Your task to perform on an android device: What's the news in Myanmar? Image 0: 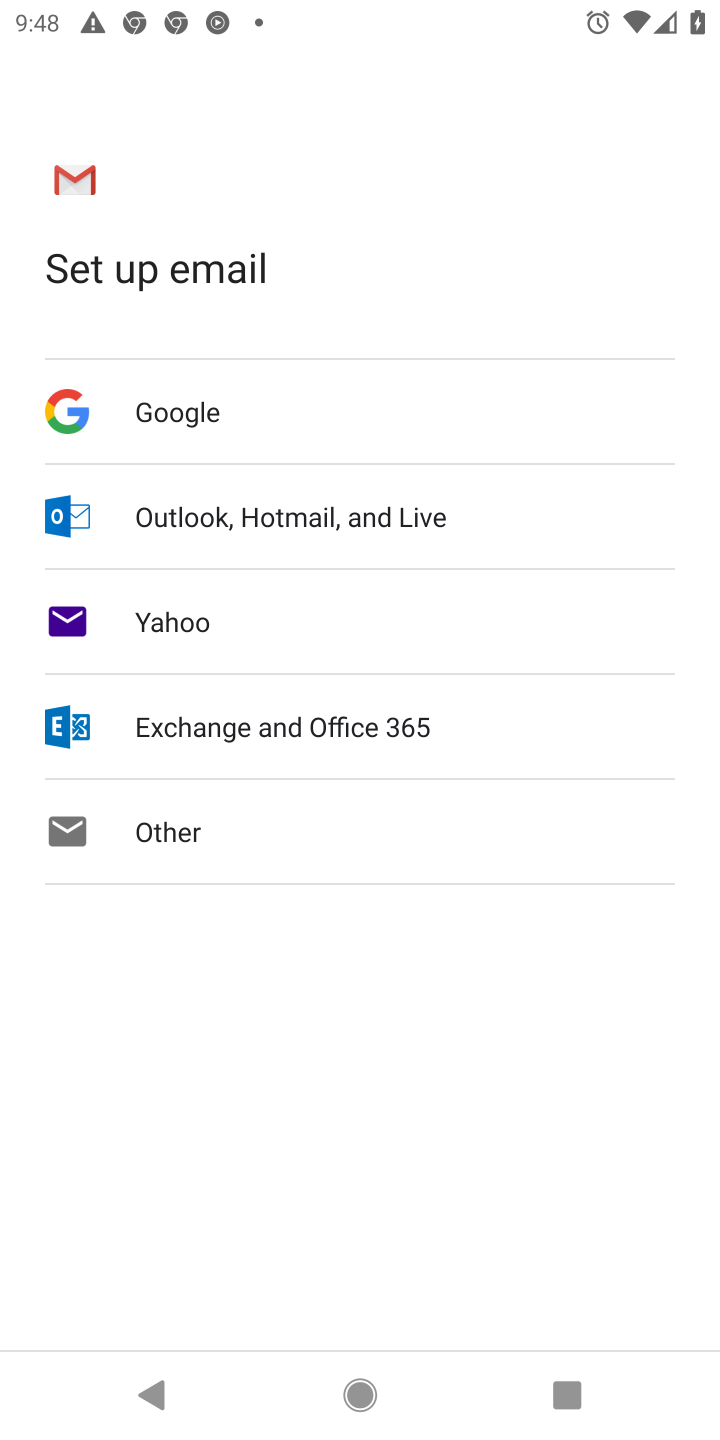
Step 0: press home button
Your task to perform on an android device: What's the news in Myanmar? Image 1: 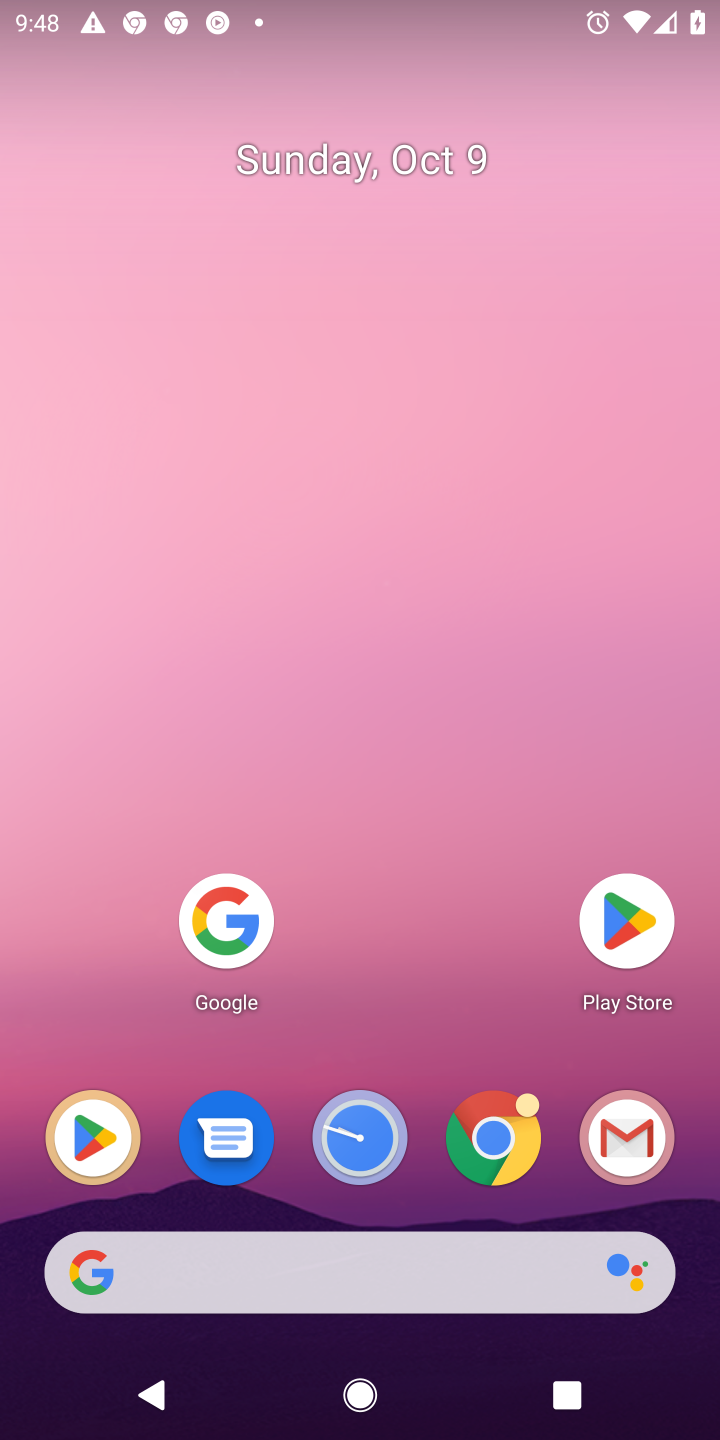
Step 1: click (219, 912)
Your task to perform on an android device: What's the news in Myanmar? Image 2: 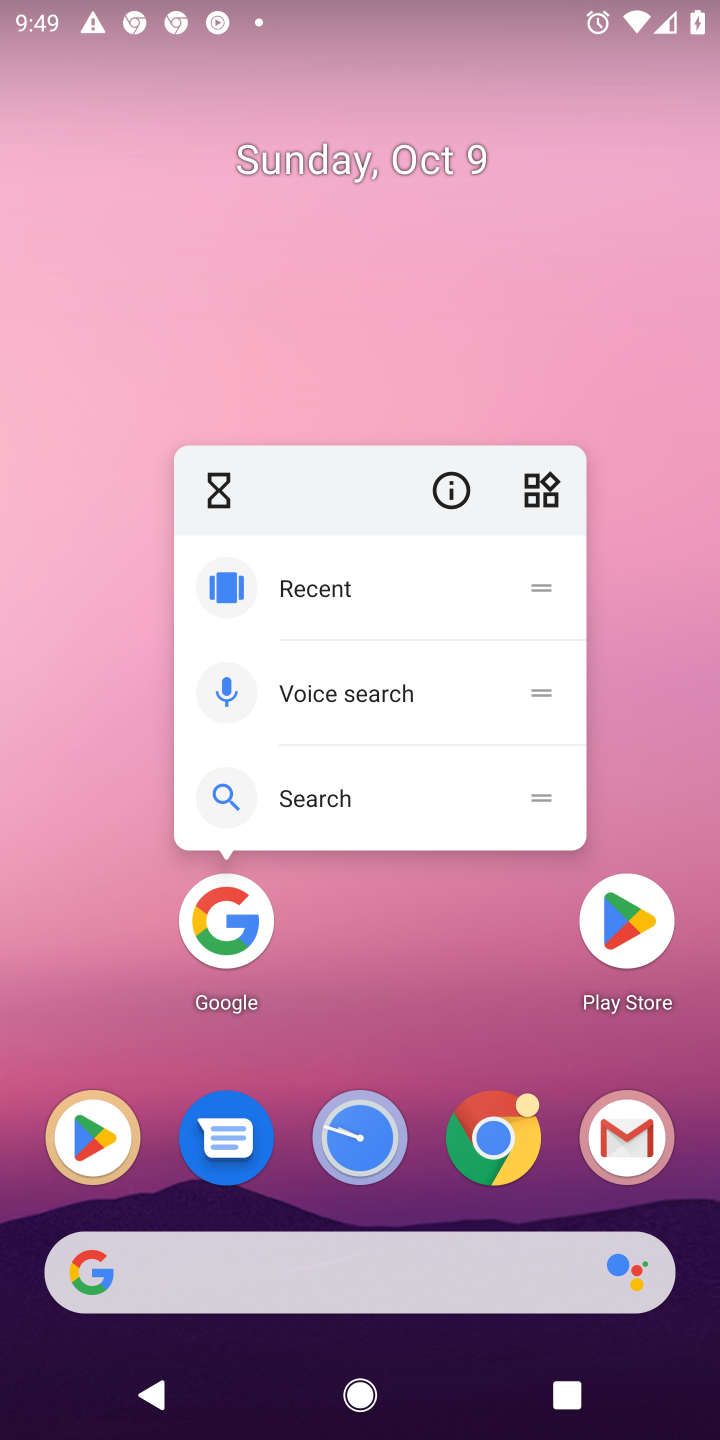
Step 2: click (236, 923)
Your task to perform on an android device: What's the news in Myanmar? Image 3: 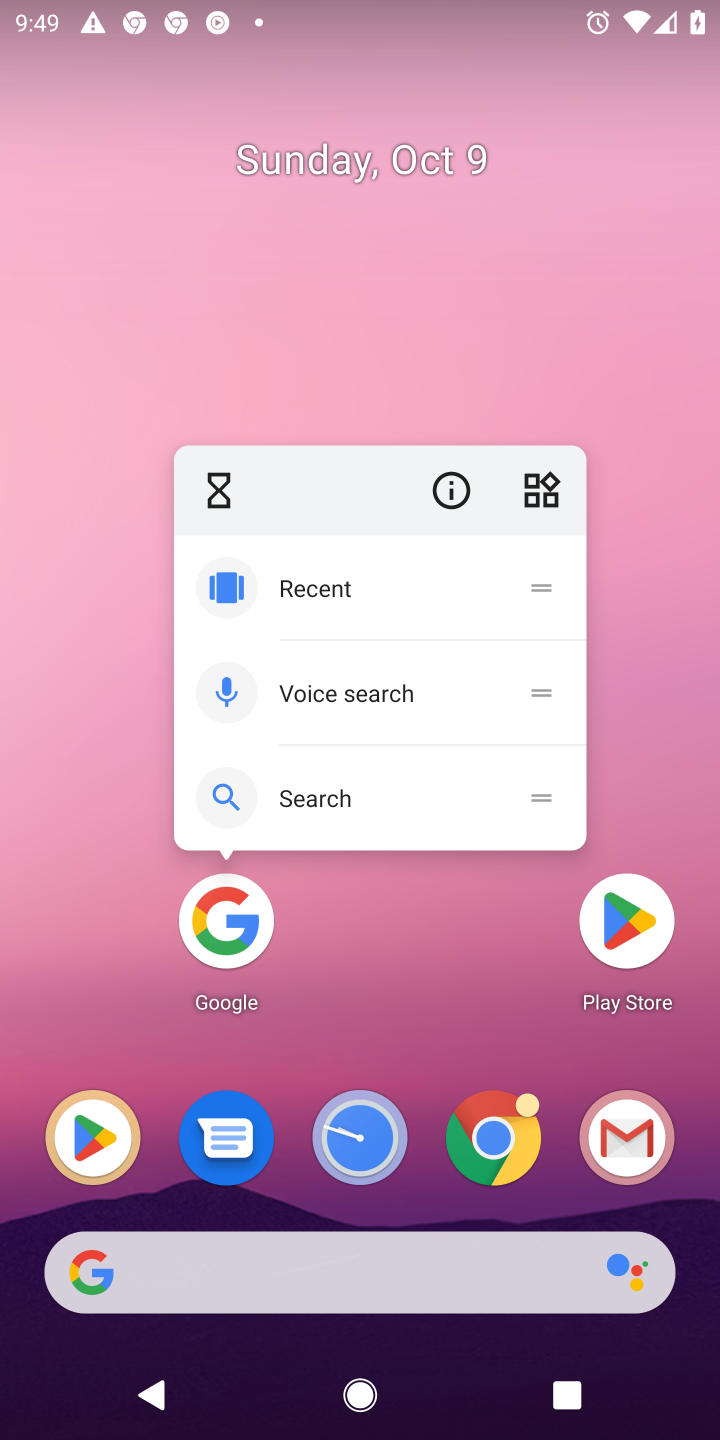
Step 3: click (199, 920)
Your task to perform on an android device: What's the news in Myanmar? Image 4: 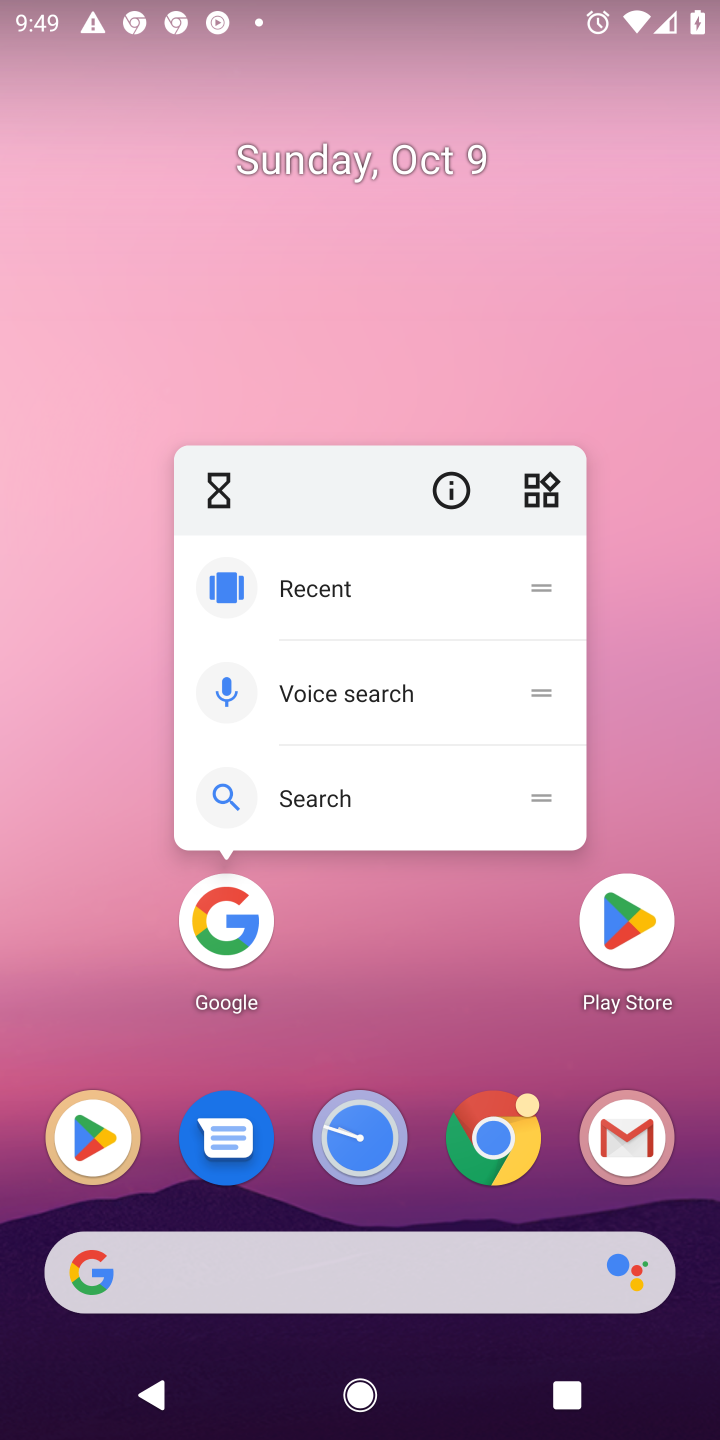
Step 4: click (234, 909)
Your task to perform on an android device: What's the news in Myanmar? Image 5: 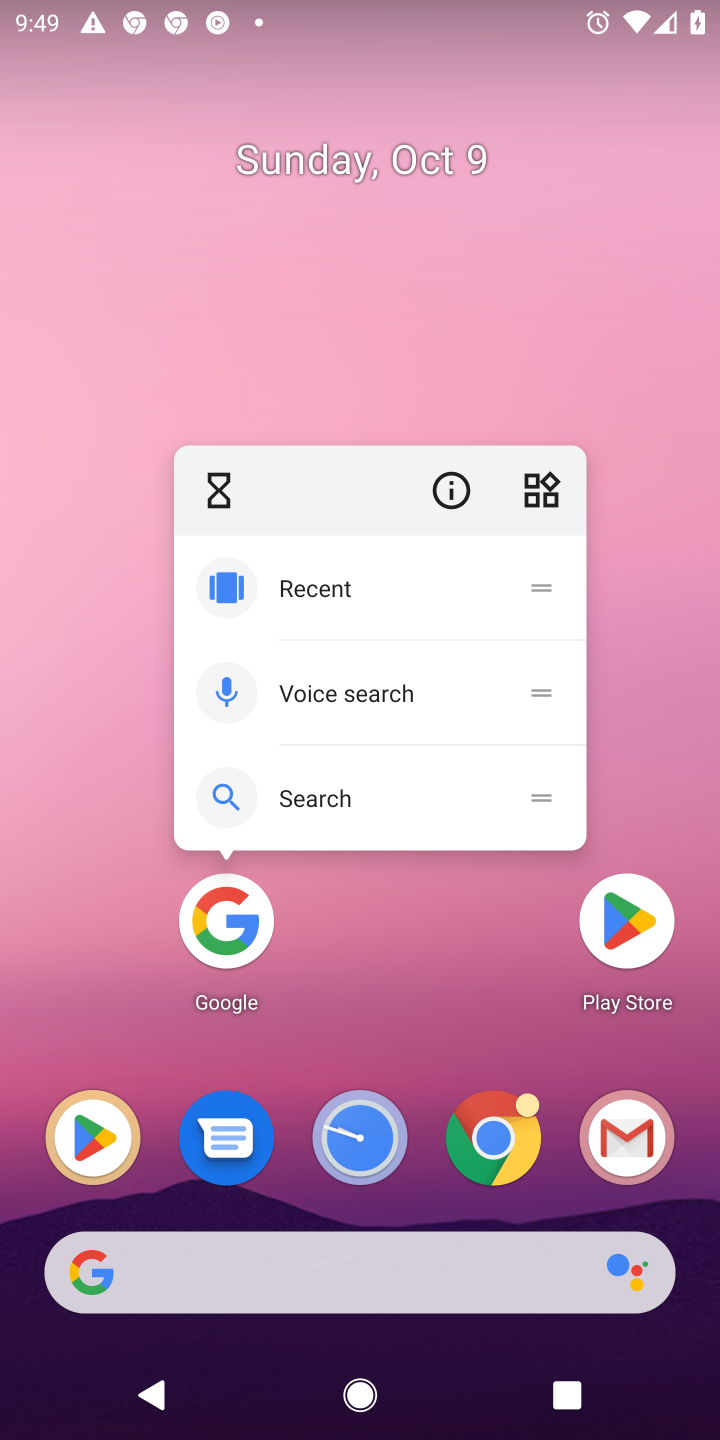
Step 5: click (234, 909)
Your task to perform on an android device: What's the news in Myanmar? Image 6: 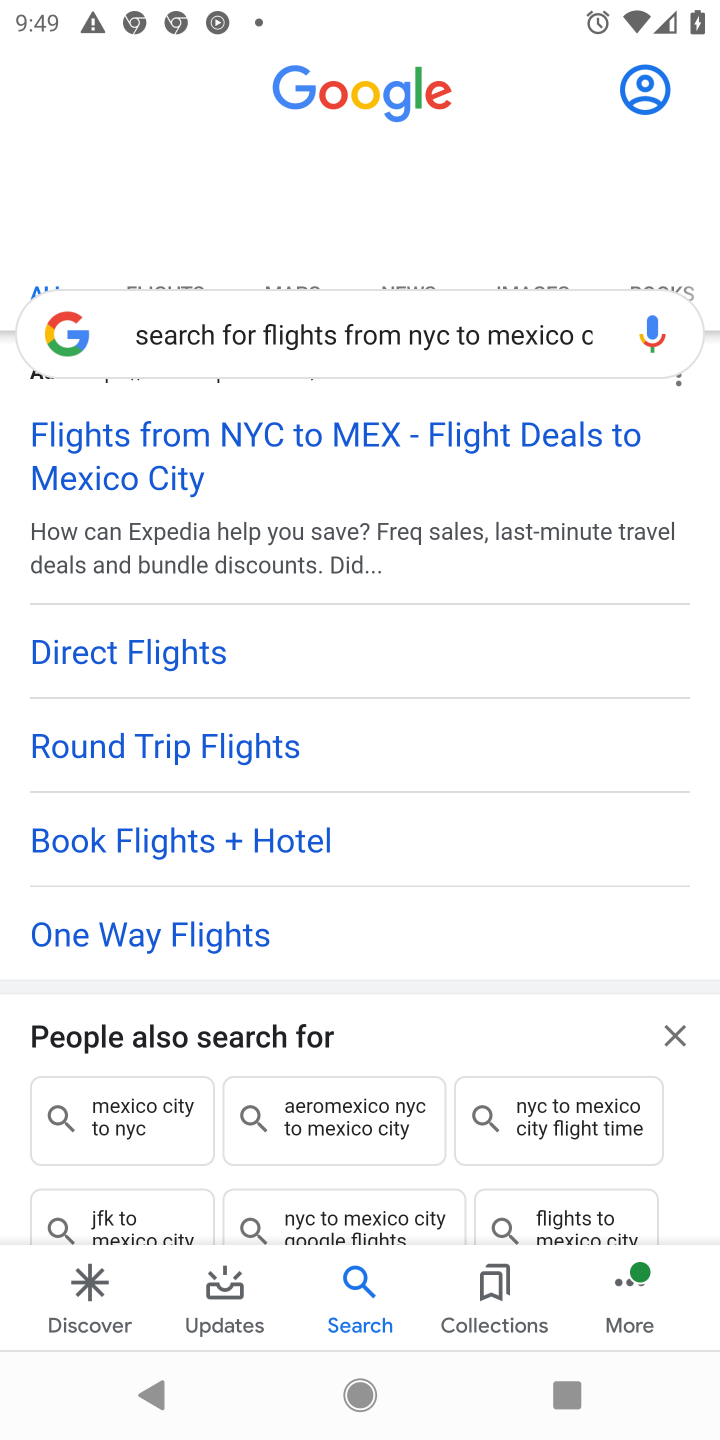
Step 6: click (301, 321)
Your task to perform on an android device: What's the news in Myanmar? Image 7: 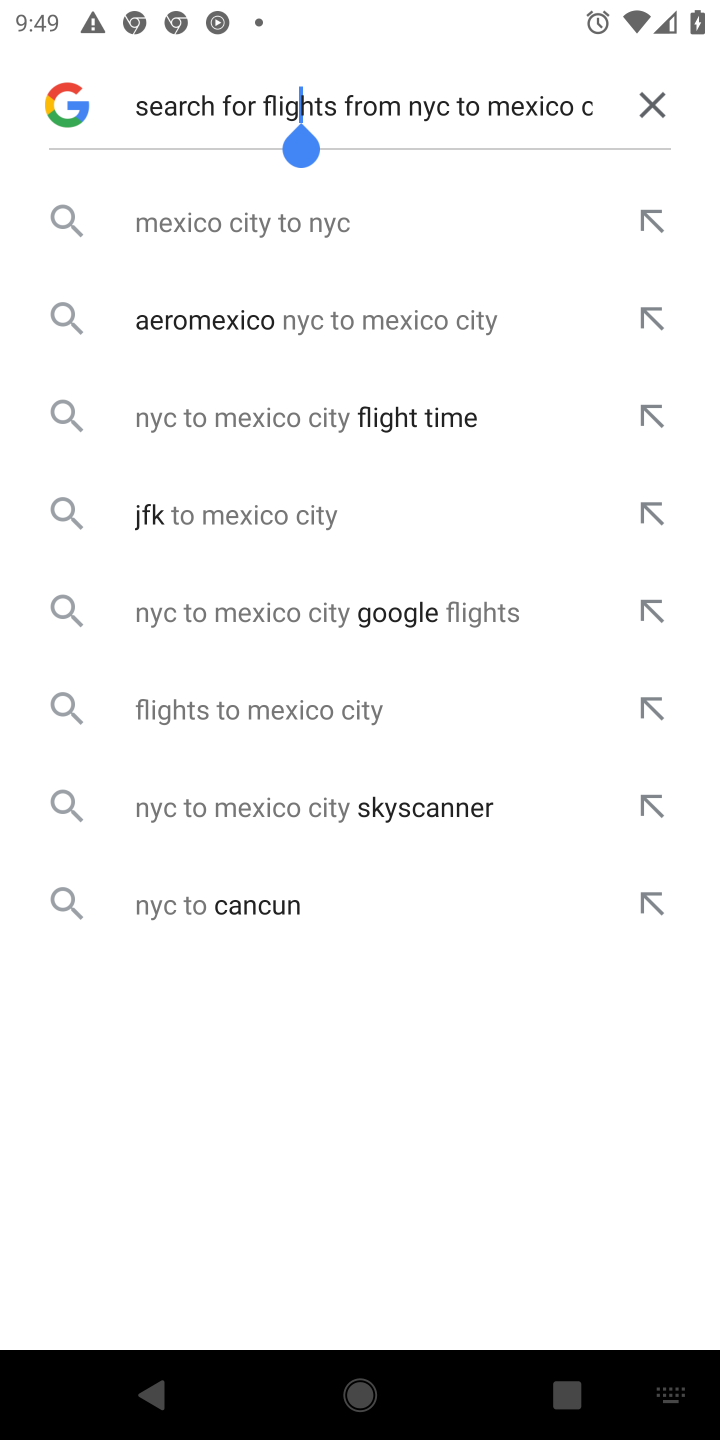
Step 7: click (647, 90)
Your task to perform on an android device: What's the news in Myanmar? Image 8: 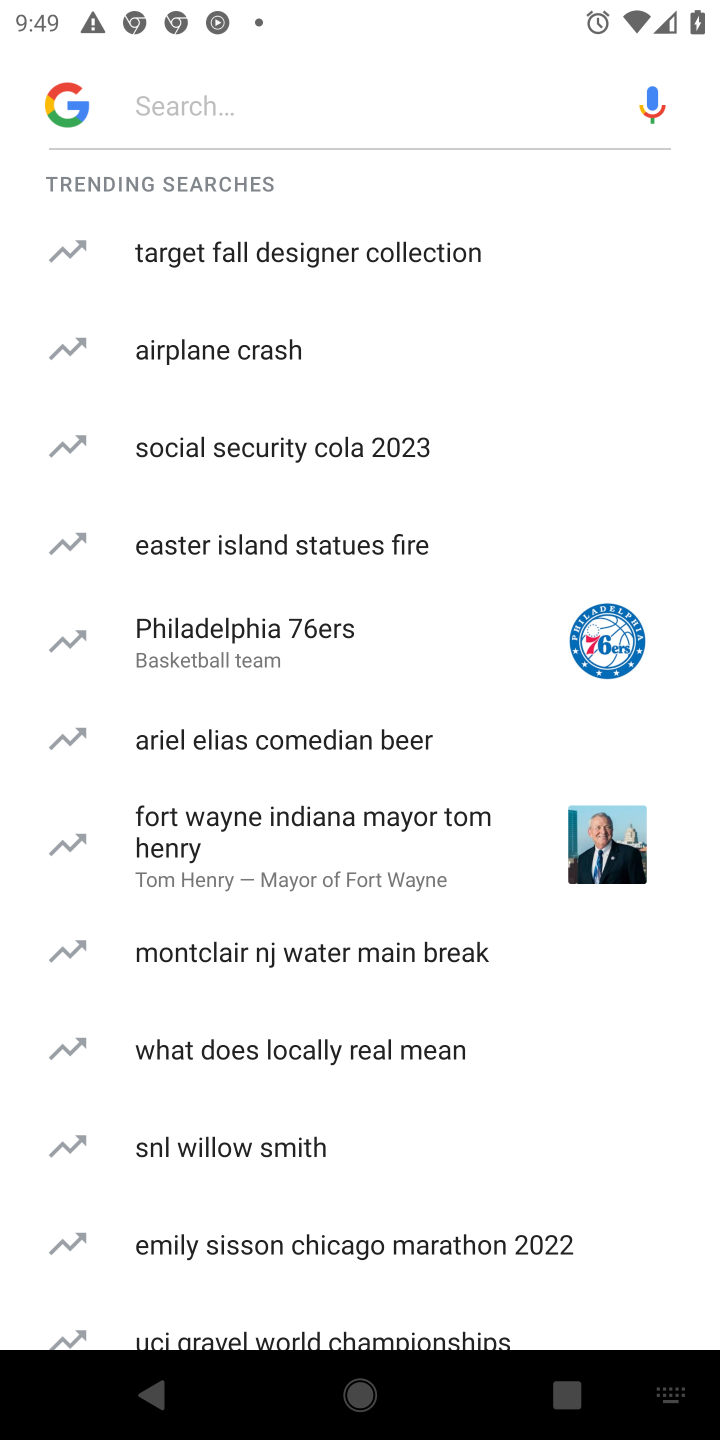
Step 8: click (423, 104)
Your task to perform on an android device: What's the news in Myanmar? Image 9: 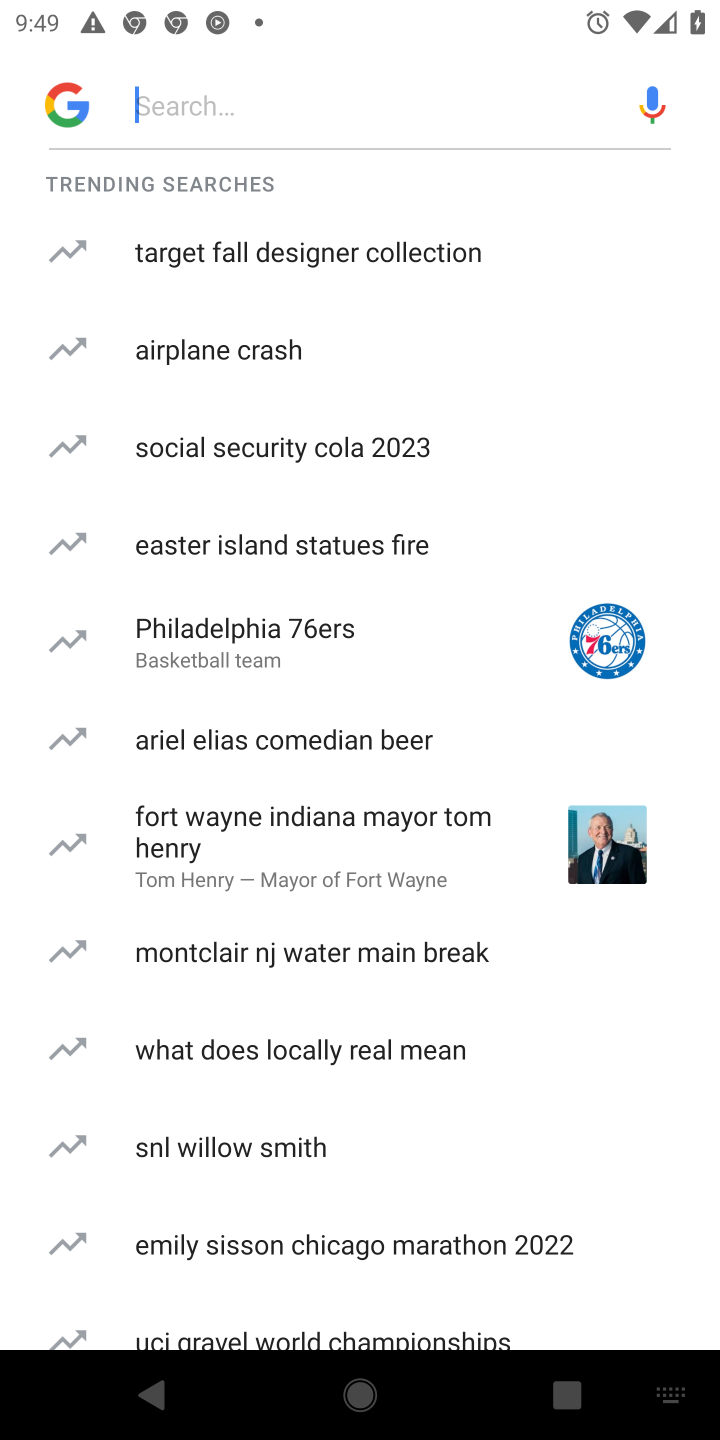
Step 9: type "What's the news in Myanmar? "
Your task to perform on an android device: What's the news in Myanmar? Image 10: 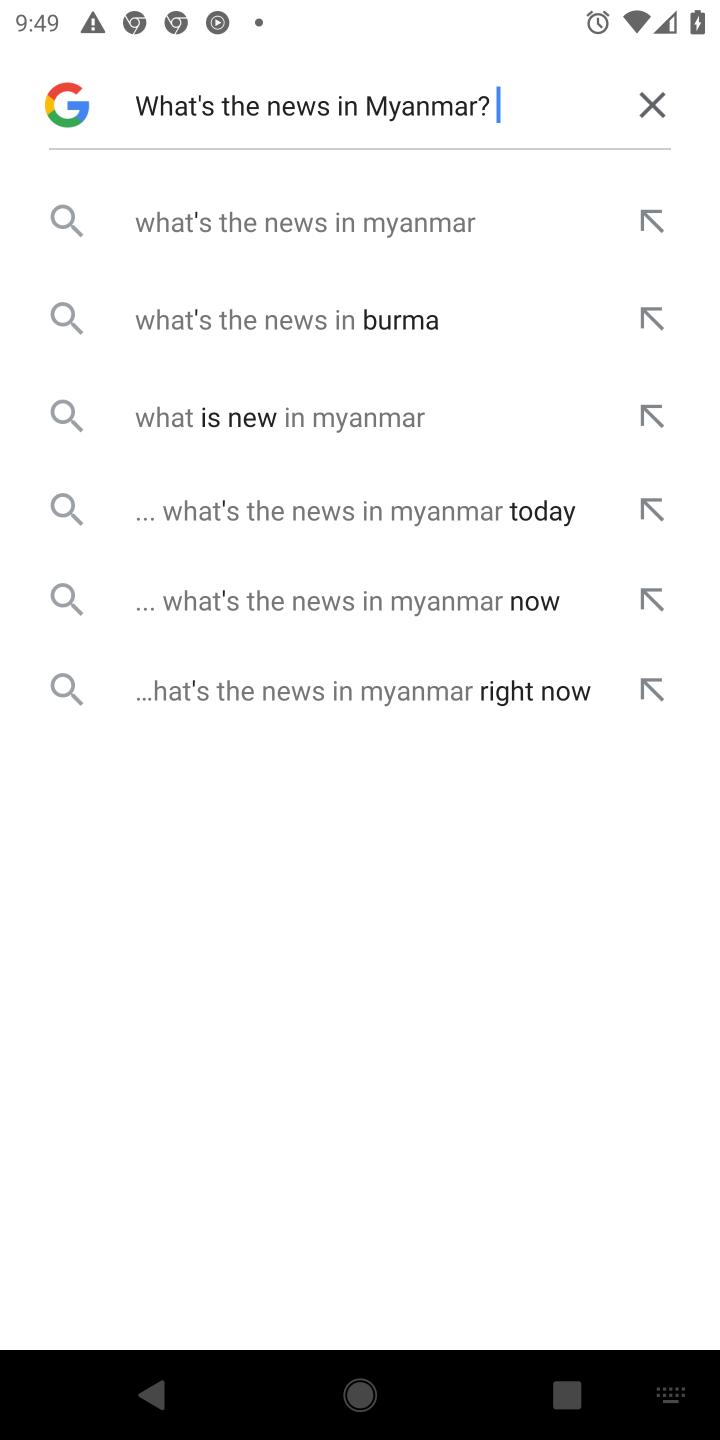
Step 10: click (263, 230)
Your task to perform on an android device: What's the news in Myanmar? Image 11: 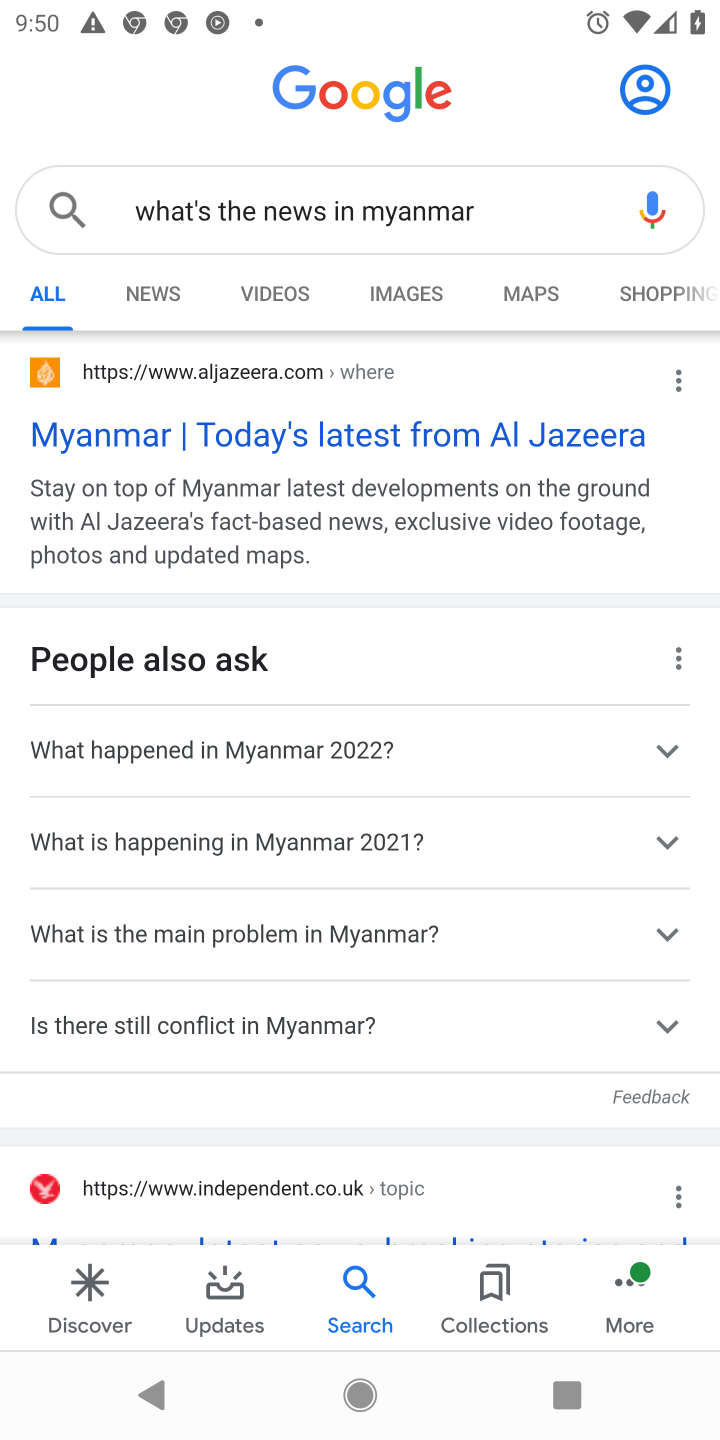
Step 11: drag from (273, 1125) to (365, 489)
Your task to perform on an android device: What's the news in Myanmar? Image 12: 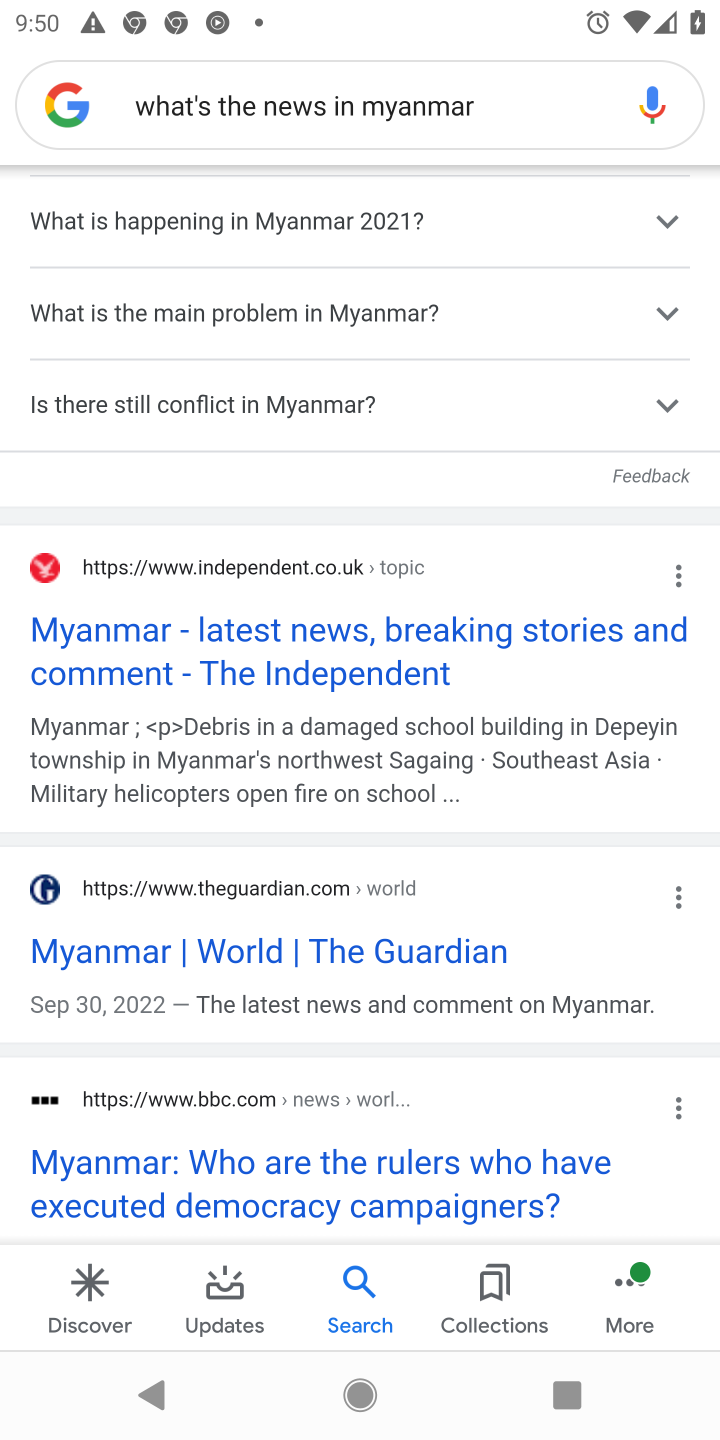
Step 12: click (242, 664)
Your task to perform on an android device: What's the news in Myanmar? Image 13: 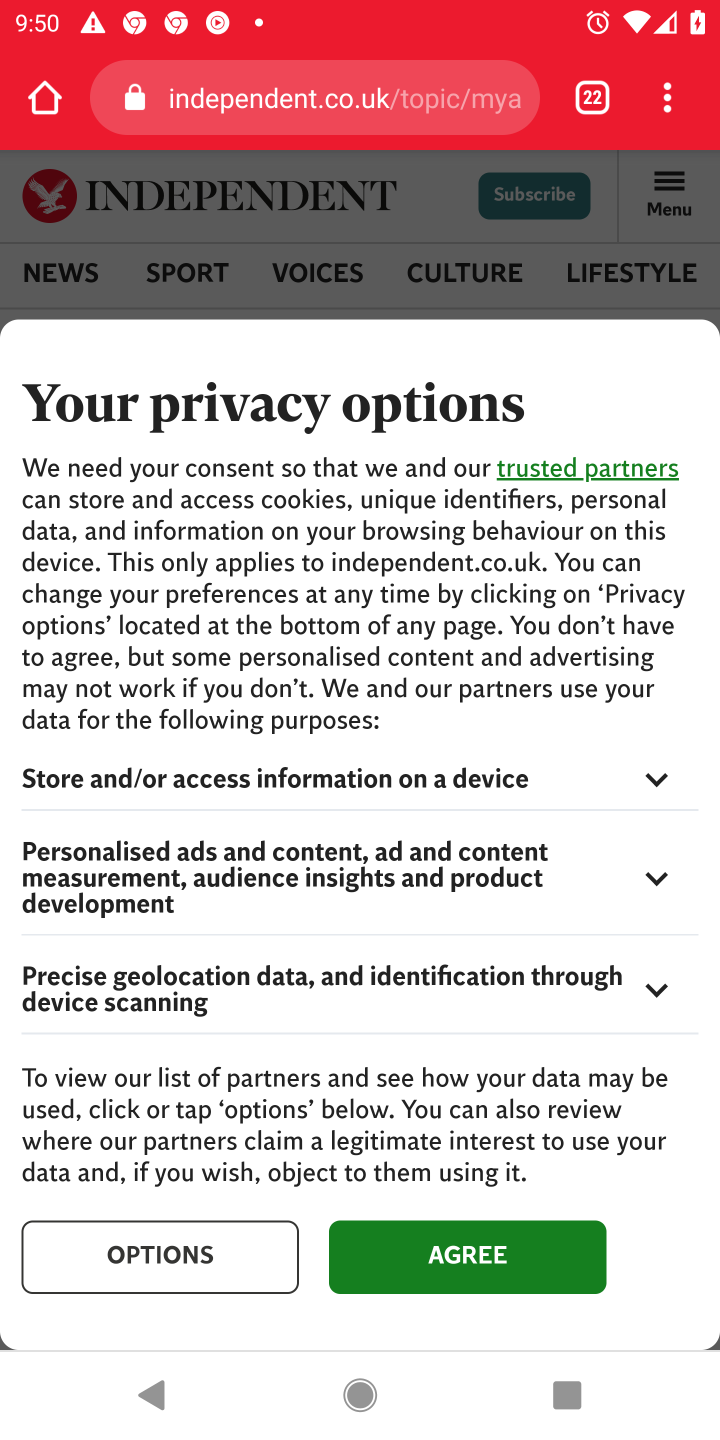
Step 13: click (403, 1238)
Your task to perform on an android device: What's the news in Myanmar? Image 14: 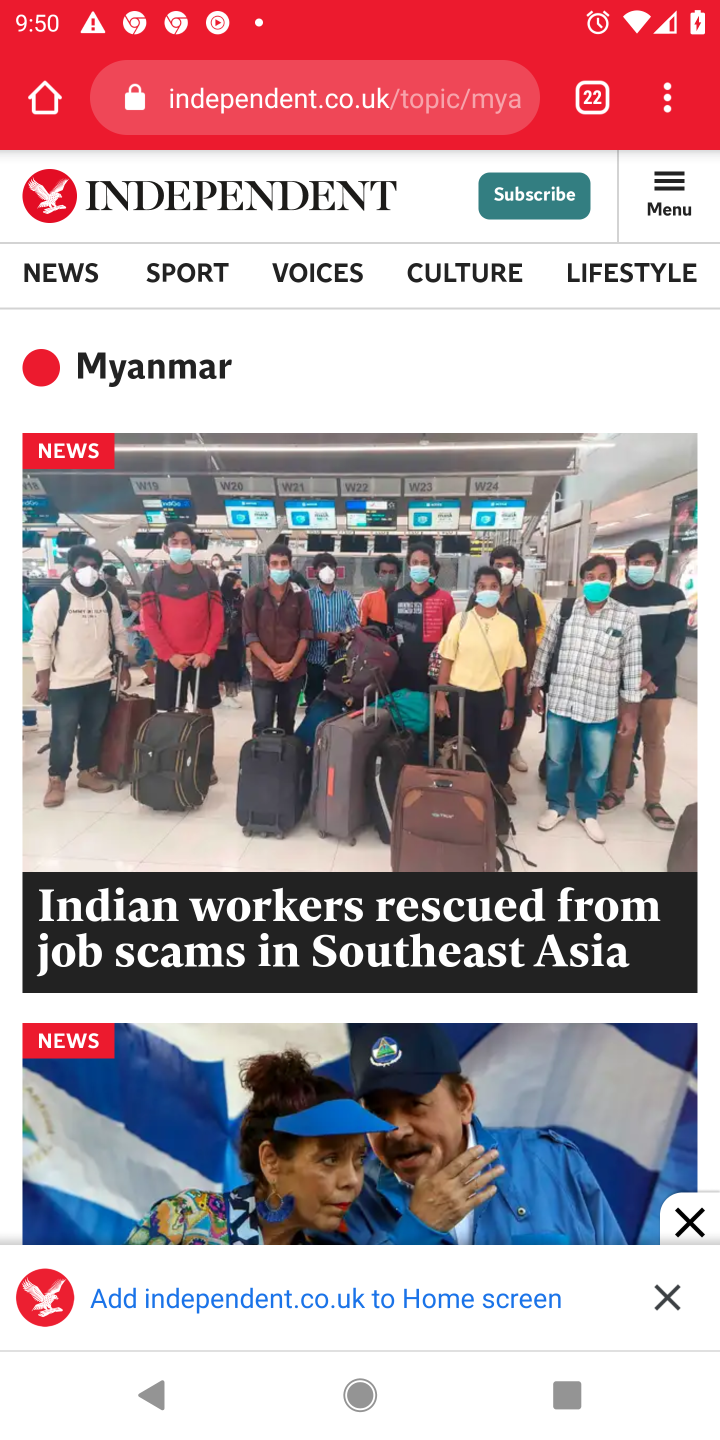
Step 14: task complete